Your task to perform on an android device: open sync settings in chrome Image 0: 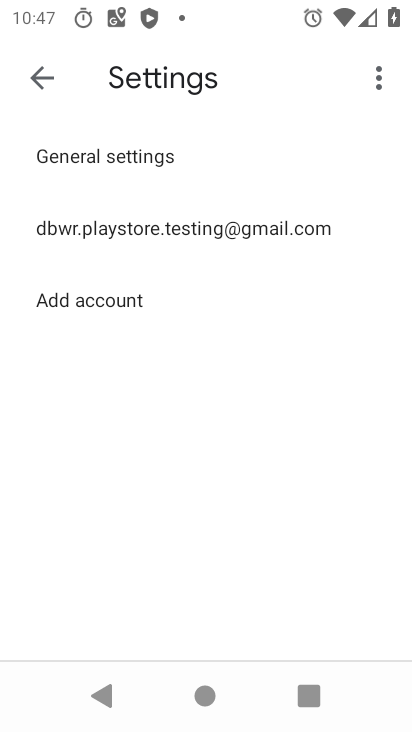
Step 0: press home button
Your task to perform on an android device: open sync settings in chrome Image 1: 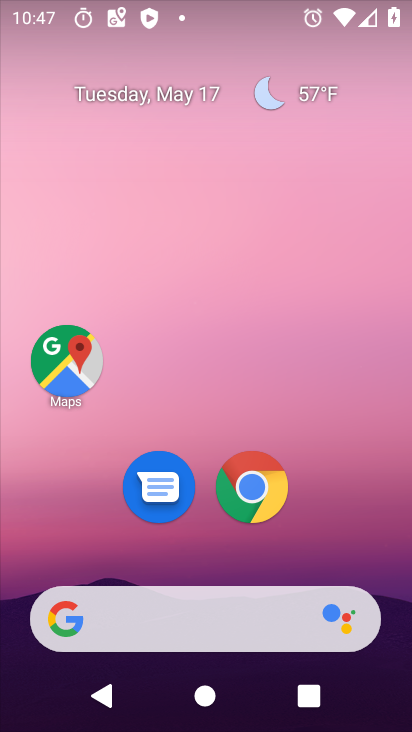
Step 1: click (254, 489)
Your task to perform on an android device: open sync settings in chrome Image 2: 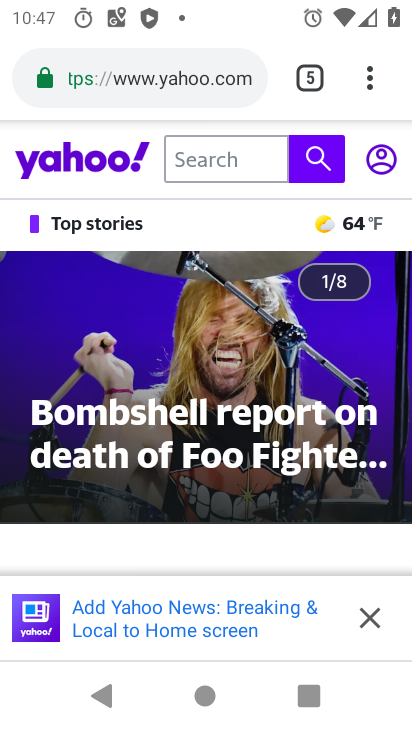
Step 2: click (372, 83)
Your task to perform on an android device: open sync settings in chrome Image 3: 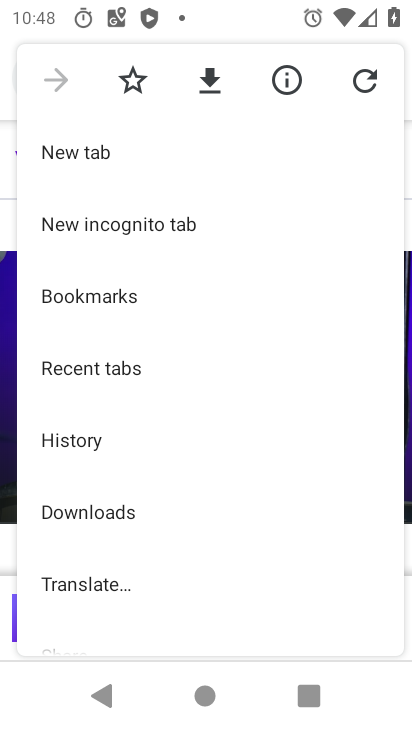
Step 3: drag from (113, 607) to (155, 254)
Your task to perform on an android device: open sync settings in chrome Image 4: 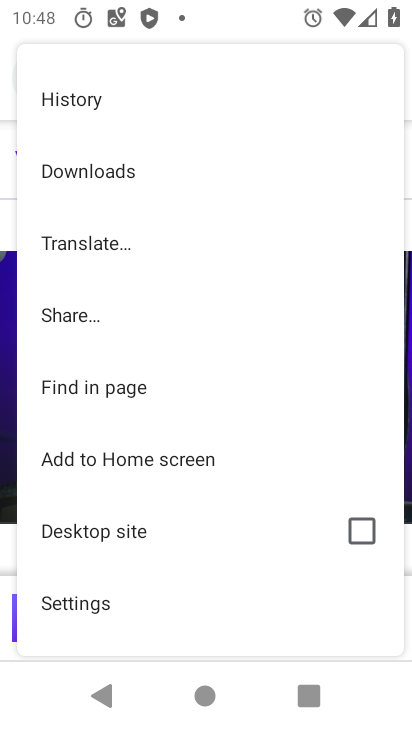
Step 4: click (79, 602)
Your task to perform on an android device: open sync settings in chrome Image 5: 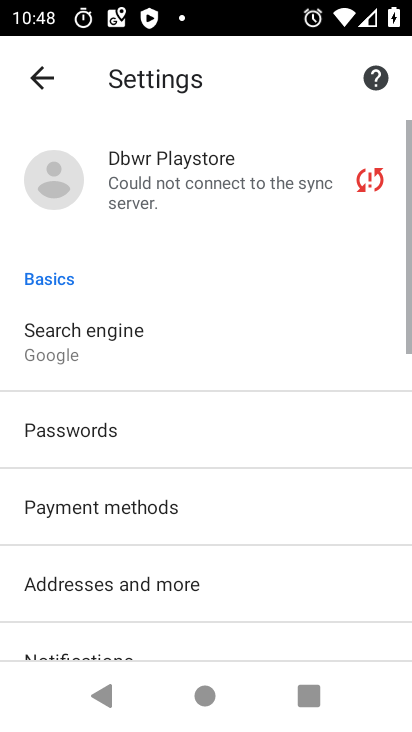
Step 5: drag from (142, 641) to (178, 265)
Your task to perform on an android device: open sync settings in chrome Image 6: 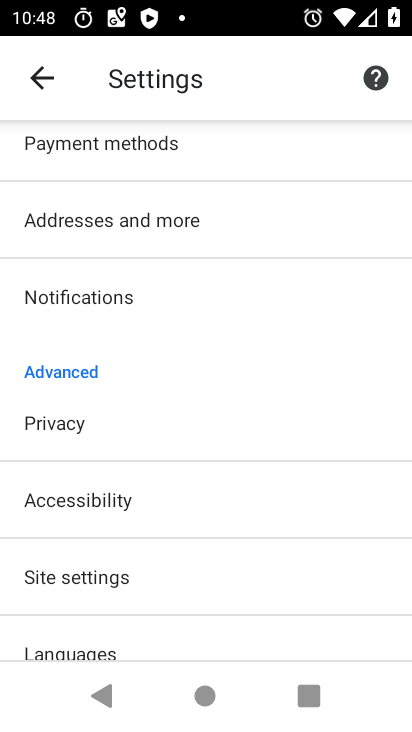
Step 6: drag from (178, 619) to (221, 301)
Your task to perform on an android device: open sync settings in chrome Image 7: 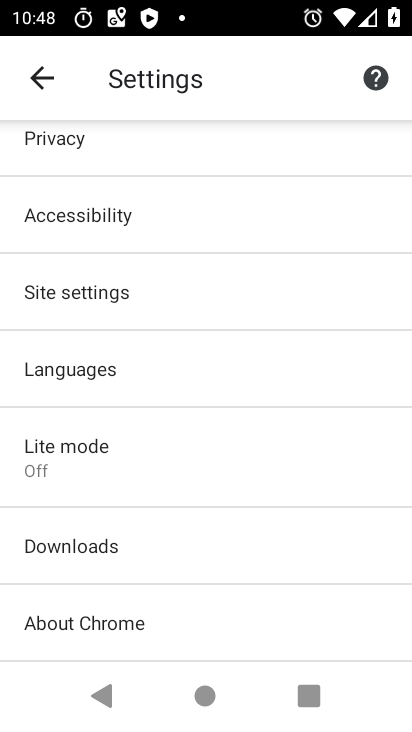
Step 7: drag from (112, 598) to (151, 306)
Your task to perform on an android device: open sync settings in chrome Image 8: 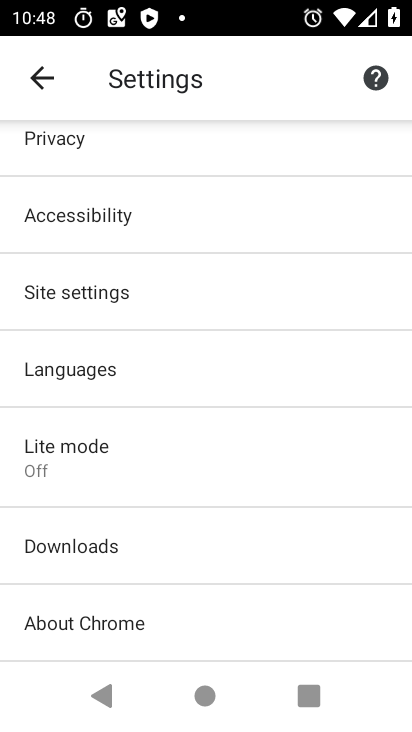
Step 8: click (81, 289)
Your task to perform on an android device: open sync settings in chrome Image 9: 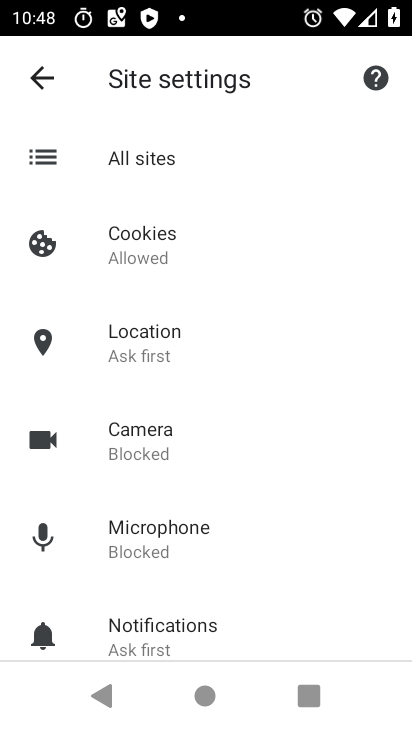
Step 9: drag from (170, 520) to (193, 158)
Your task to perform on an android device: open sync settings in chrome Image 10: 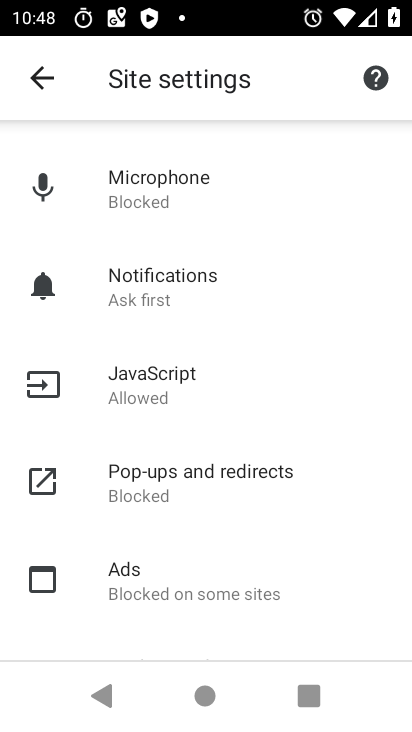
Step 10: drag from (174, 593) to (186, 243)
Your task to perform on an android device: open sync settings in chrome Image 11: 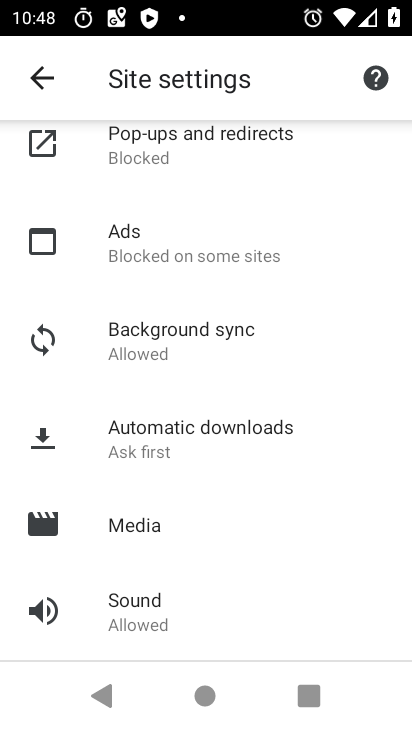
Step 11: click (142, 330)
Your task to perform on an android device: open sync settings in chrome Image 12: 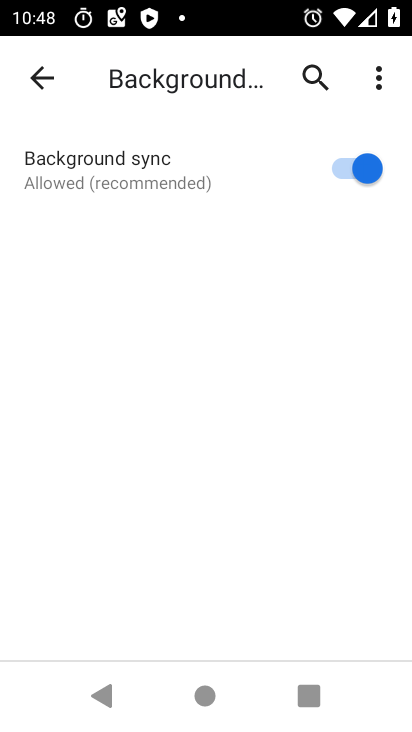
Step 12: task complete